Your task to perform on an android device: Open the map Image 0: 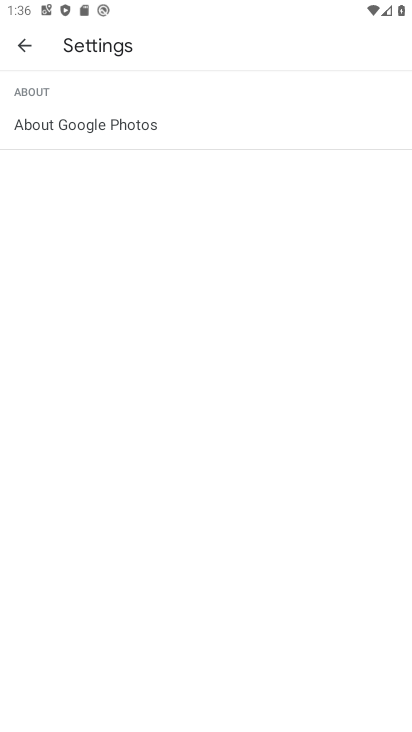
Step 0: press home button
Your task to perform on an android device: Open the map Image 1: 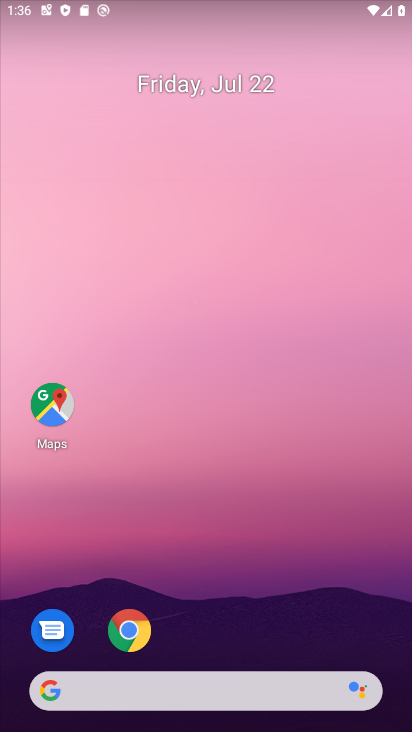
Step 1: click (51, 410)
Your task to perform on an android device: Open the map Image 2: 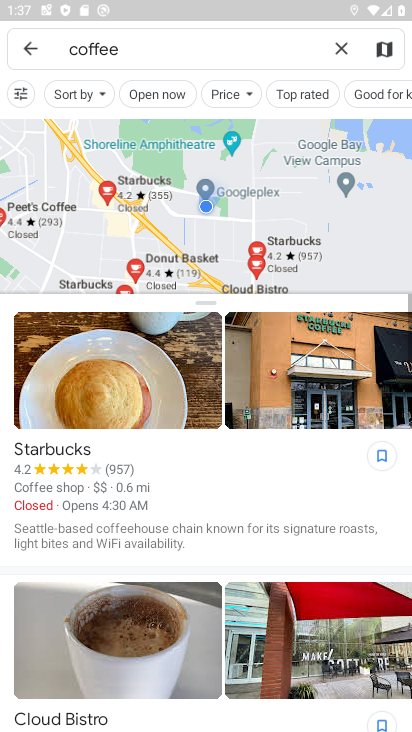
Step 2: task complete